Your task to perform on an android device: Go to ESPN.com Image 0: 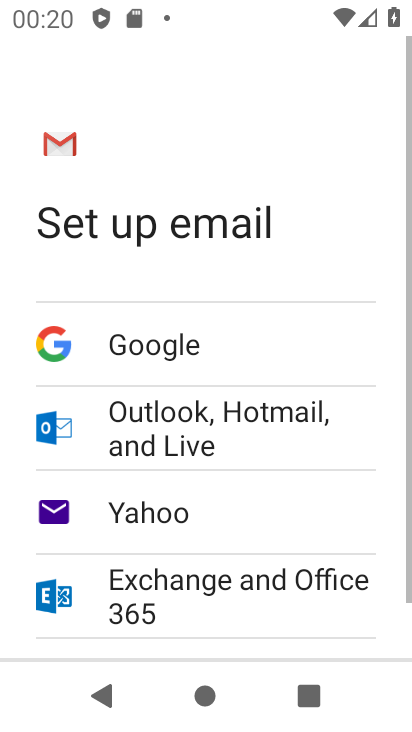
Step 0: press home button
Your task to perform on an android device: Go to ESPN.com Image 1: 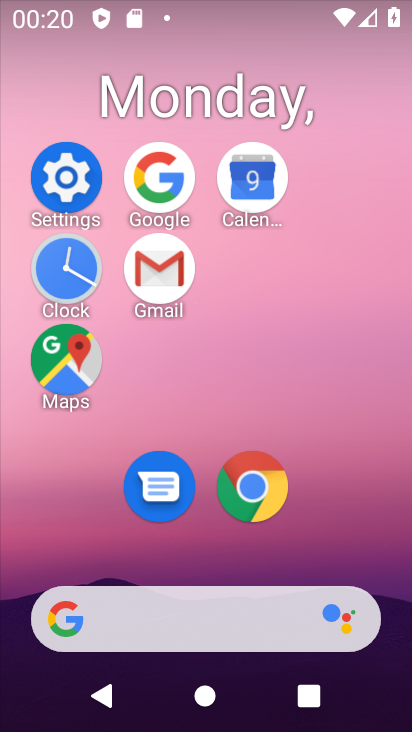
Step 1: click (250, 485)
Your task to perform on an android device: Go to ESPN.com Image 2: 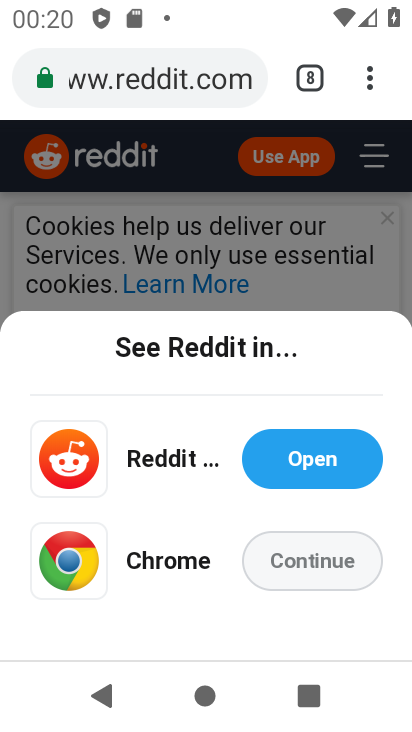
Step 2: click (313, 64)
Your task to perform on an android device: Go to ESPN.com Image 3: 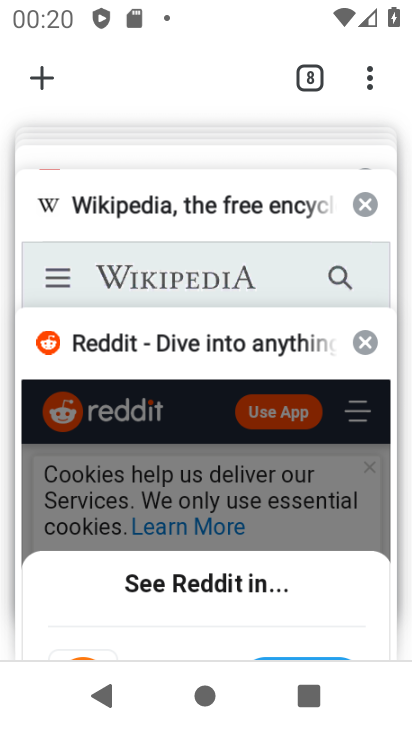
Step 3: drag from (249, 270) to (264, 441)
Your task to perform on an android device: Go to ESPN.com Image 4: 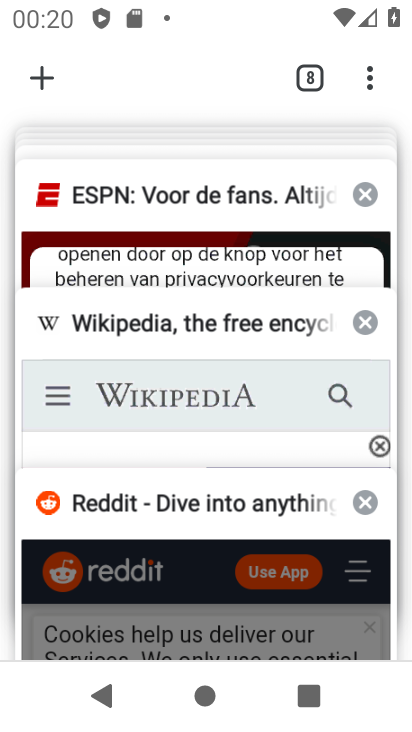
Step 4: click (187, 190)
Your task to perform on an android device: Go to ESPN.com Image 5: 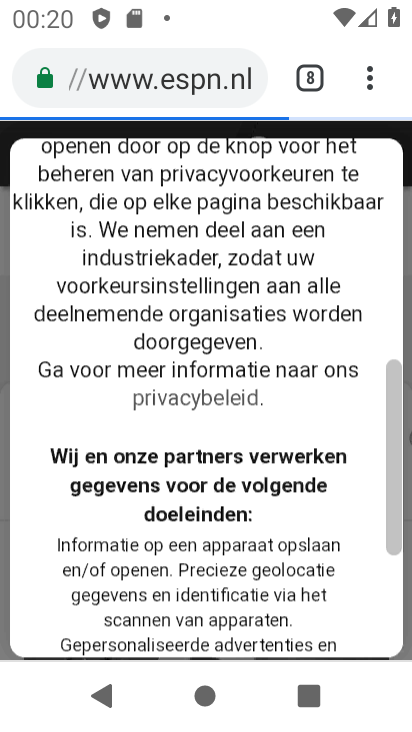
Step 5: task complete